Your task to perform on an android device: Open my contact list Image 0: 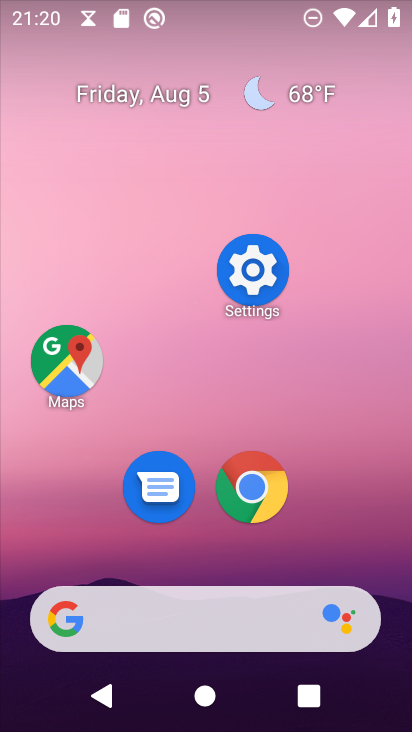
Step 0: drag from (213, 632) to (211, 103)
Your task to perform on an android device: Open my contact list Image 1: 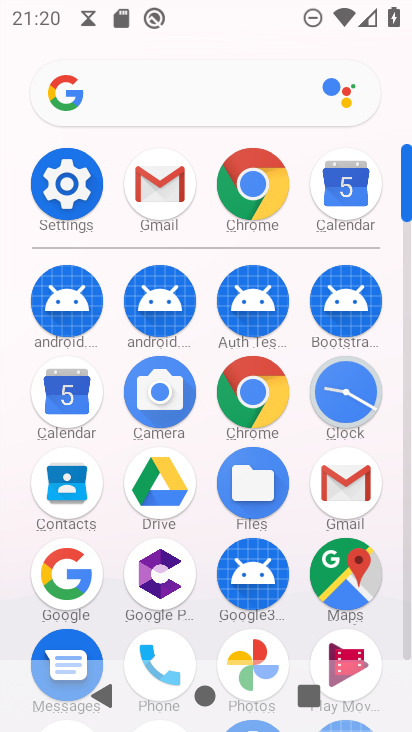
Step 1: click (54, 487)
Your task to perform on an android device: Open my contact list Image 2: 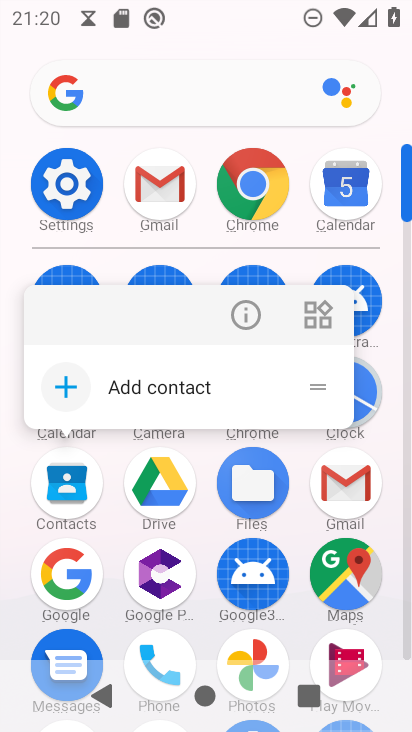
Step 2: click (65, 490)
Your task to perform on an android device: Open my contact list Image 3: 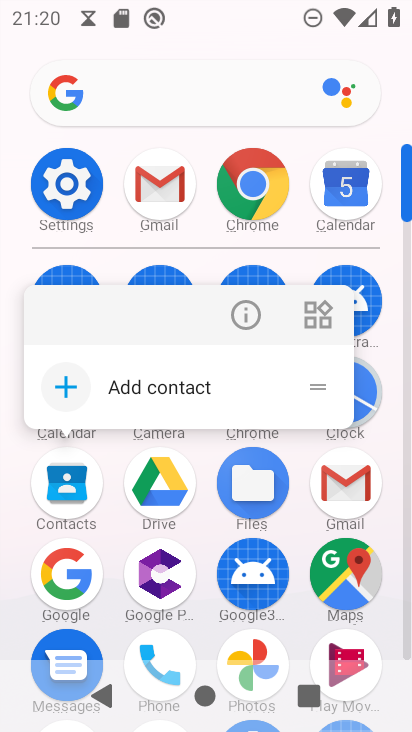
Step 3: click (65, 489)
Your task to perform on an android device: Open my contact list Image 4: 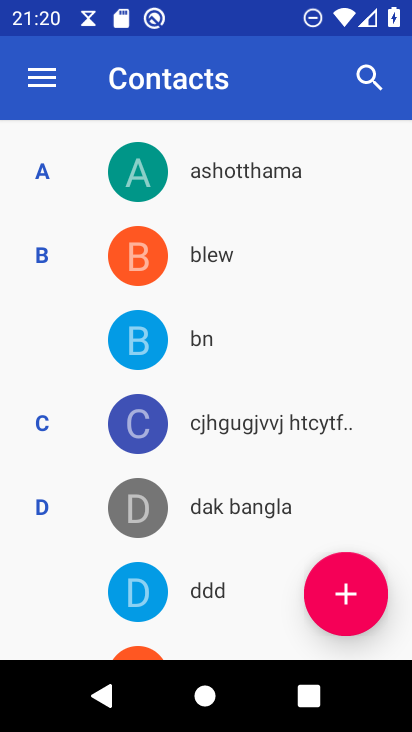
Step 4: task complete